Your task to perform on an android device: Go to Google Image 0: 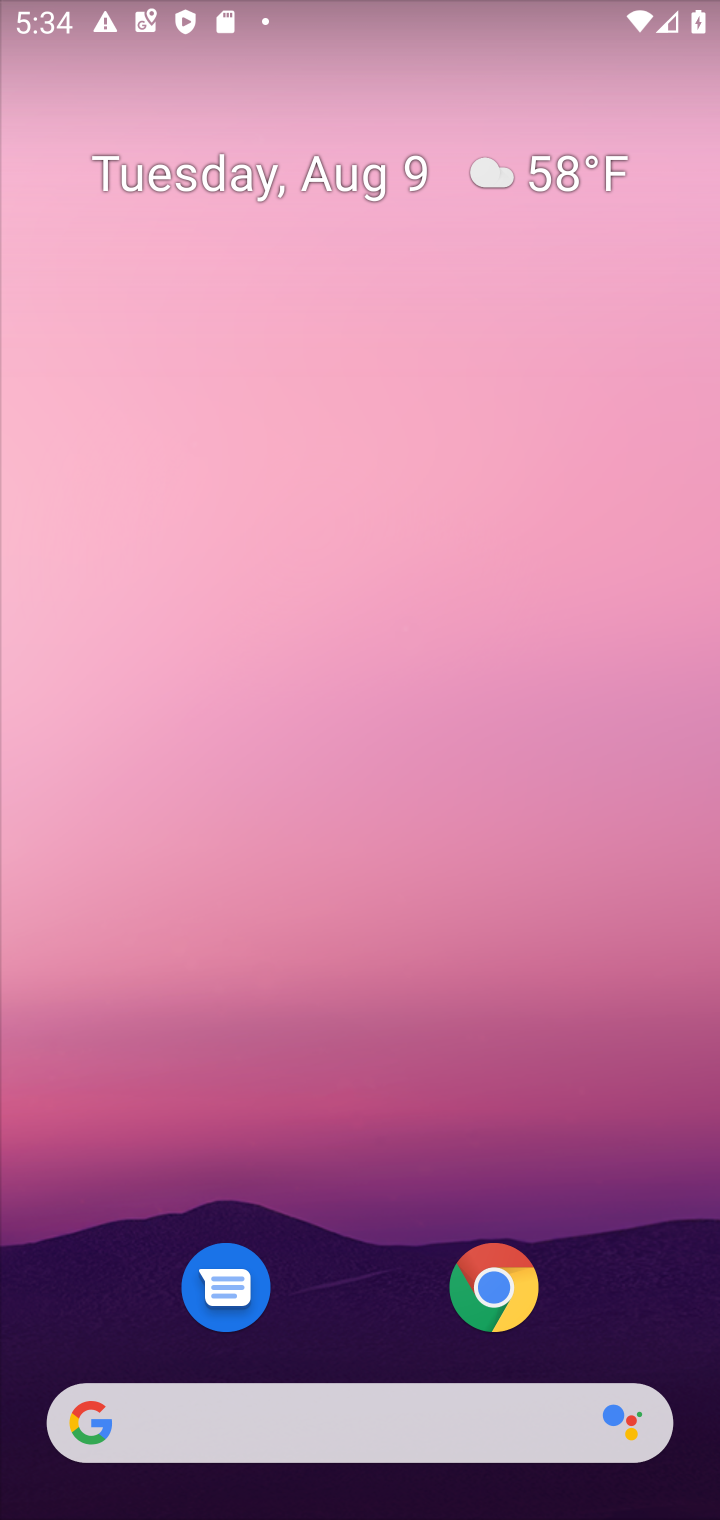
Step 0: drag from (401, 1176) to (337, 204)
Your task to perform on an android device: Go to Google Image 1: 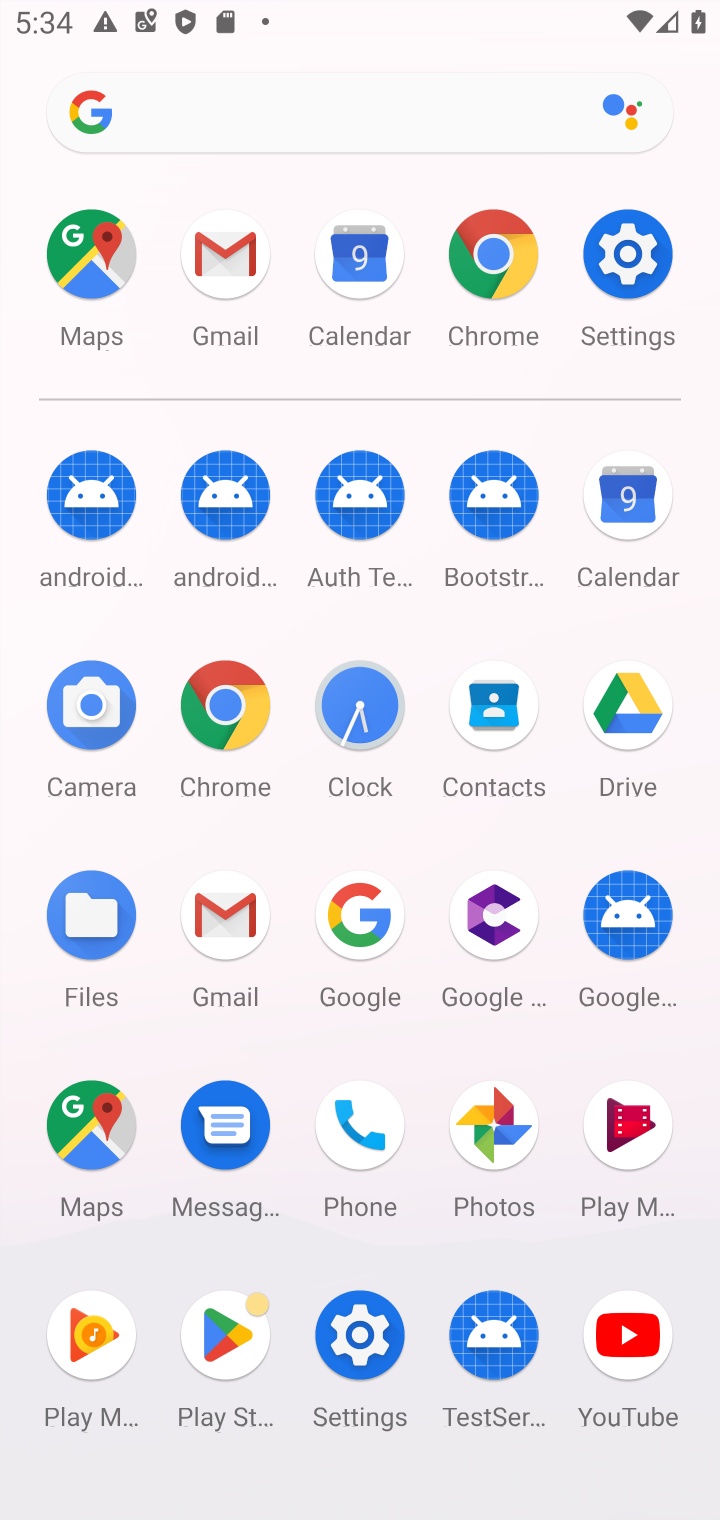
Step 1: click (510, 265)
Your task to perform on an android device: Go to Google Image 2: 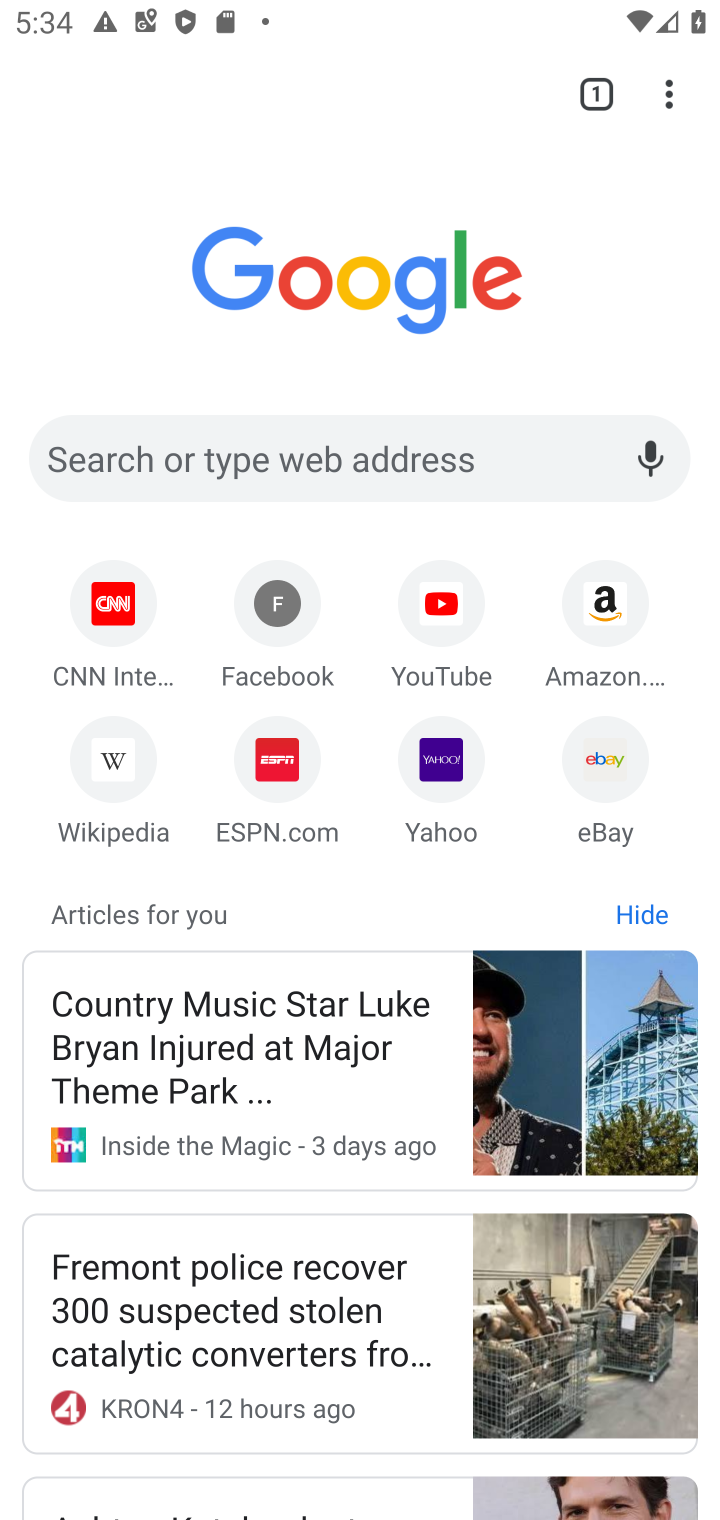
Step 2: task complete